Your task to perform on an android device: snooze an email in the gmail app Image 0: 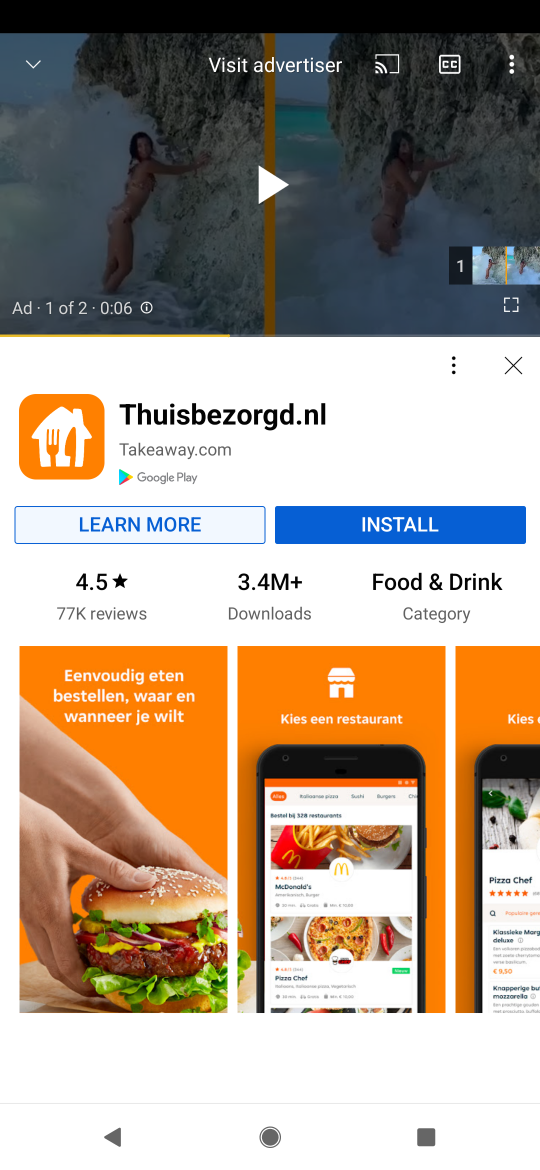
Step 0: press home button
Your task to perform on an android device: snooze an email in the gmail app Image 1: 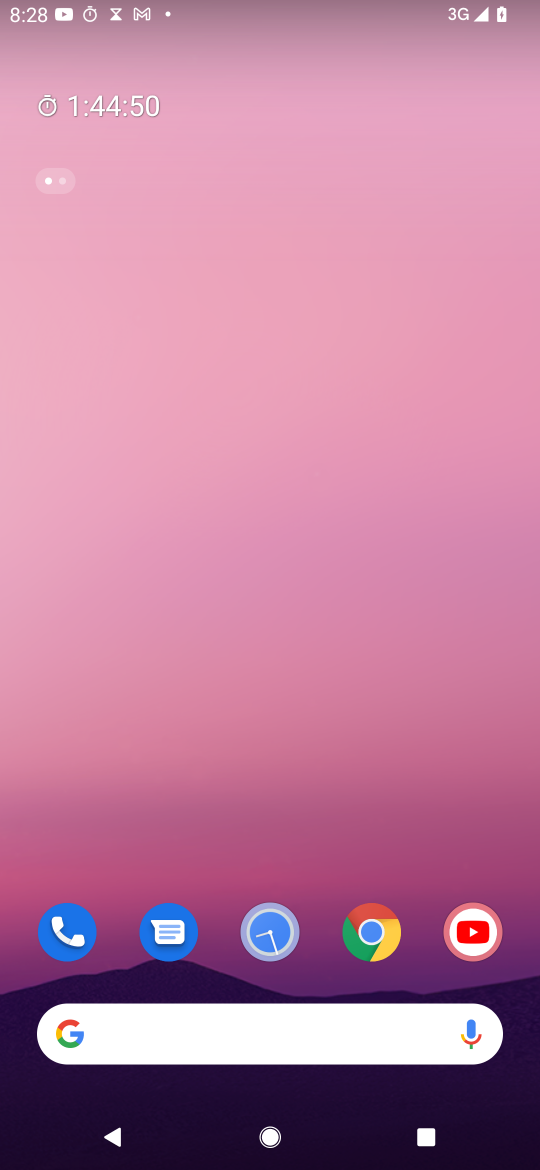
Step 1: drag from (224, 875) to (286, 56)
Your task to perform on an android device: snooze an email in the gmail app Image 2: 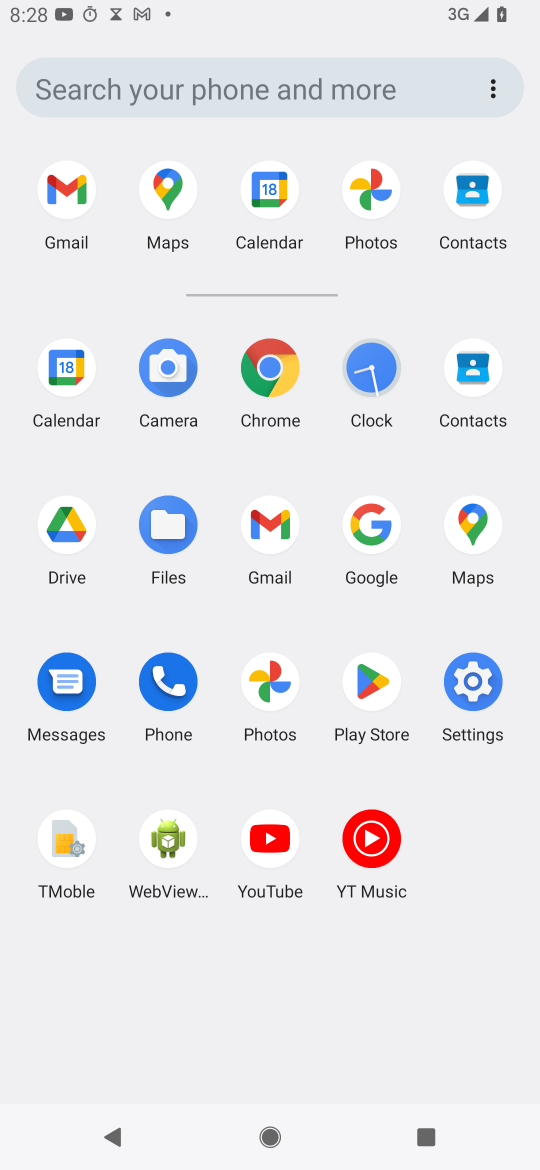
Step 2: click (269, 516)
Your task to perform on an android device: snooze an email in the gmail app Image 3: 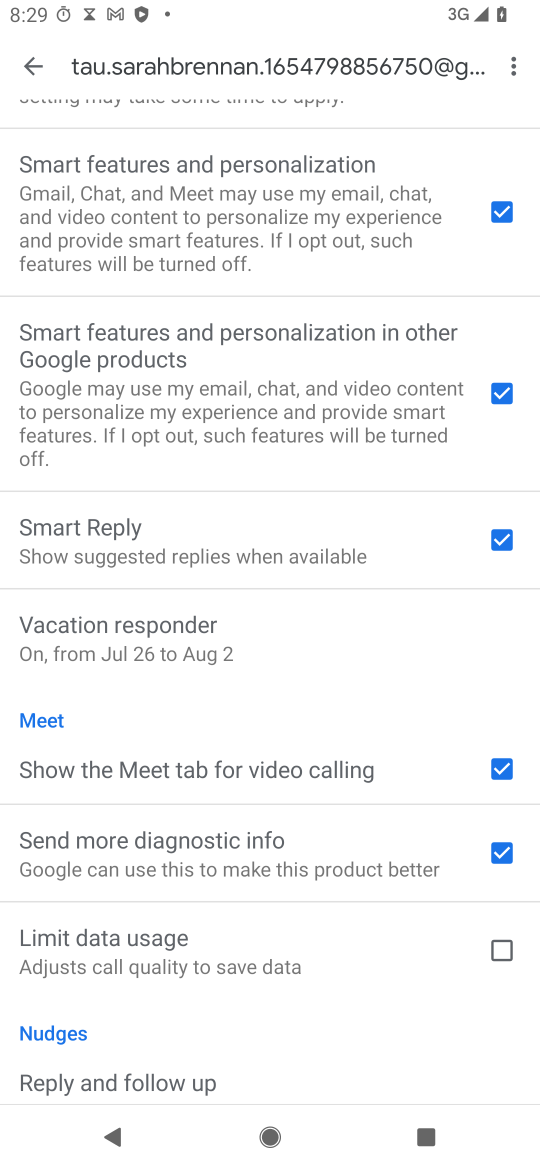
Step 3: task complete